Your task to perform on an android device: star an email in the gmail app Image 0: 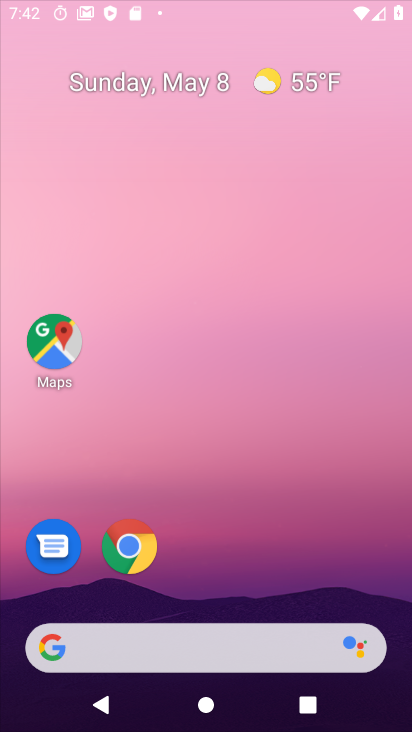
Step 0: click (218, 1)
Your task to perform on an android device: star an email in the gmail app Image 1: 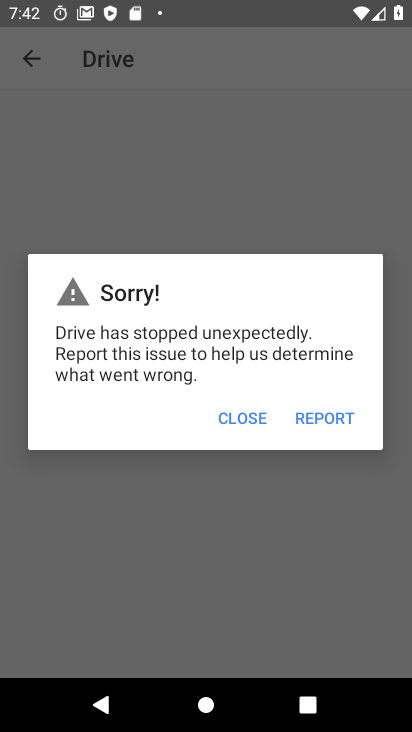
Step 1: press home button
Your task to perform on an android device: star an email in the gmail app Image 2: 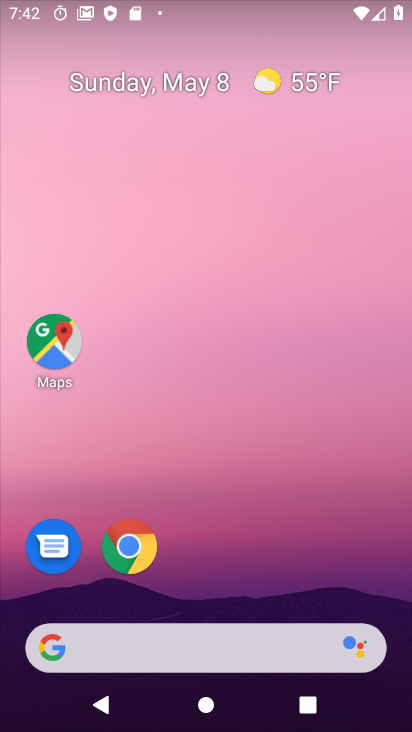
Step 2: drag from (280, 526) to (311, 19)
Your task to perform on an android device: star an email in the gmail app Image 3: 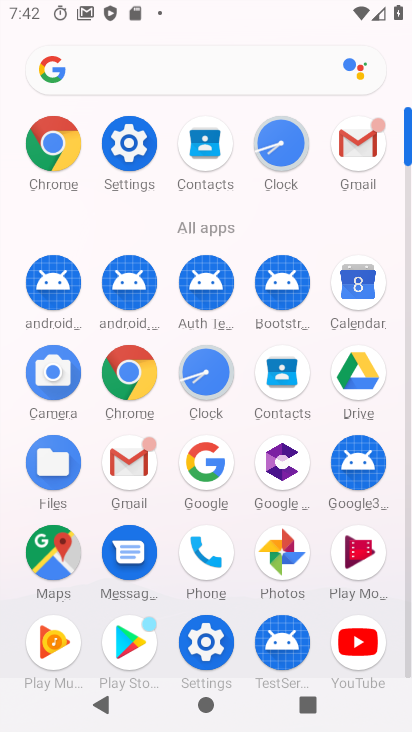
Step 3: click (341, 145)
Your task to perform on an android device: star an email in the gmail app Image 4: 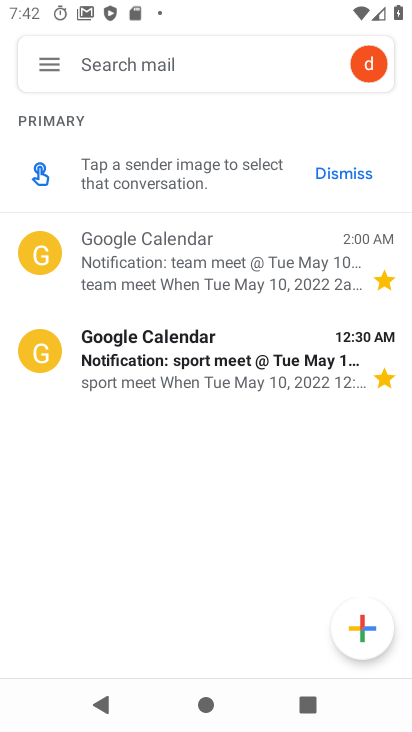
Step 4: click (46, 64)
Your task to perform on an android device: star an email in the gmail app Image 5: 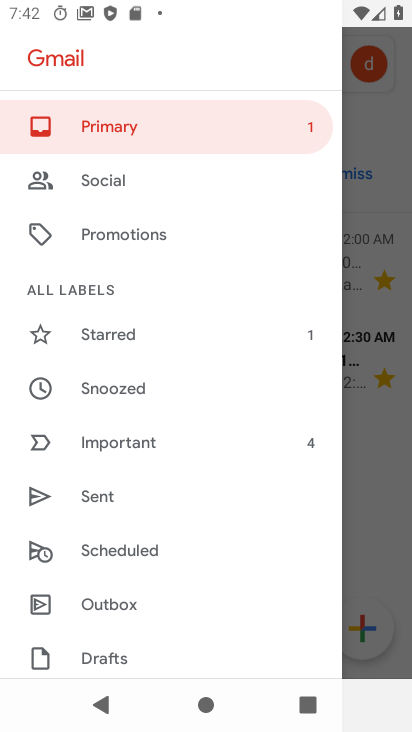
Step 5: drag from (205, 602) to (233, 205)
Your task to perform on an android device: star an email in the gmail app Image 6: 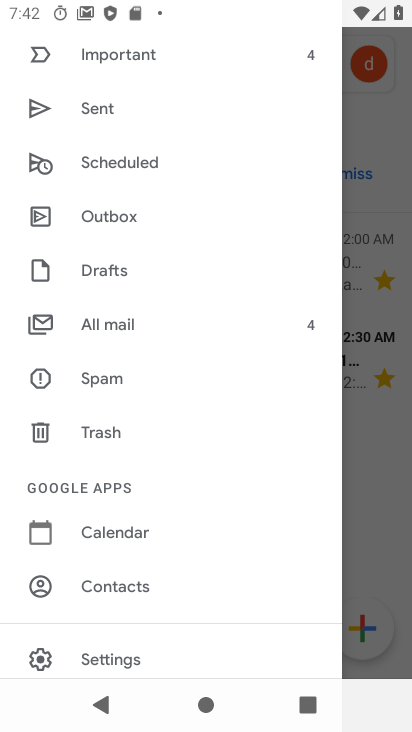
Step 6: click (178, 320)
Your task to perform on an android device: star an email in the gmail app Image 7: 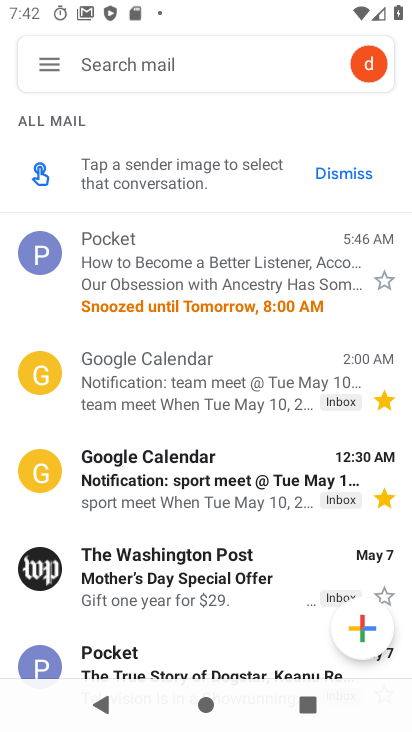
Step 7: click (387, 271)
Your task to perform on an android device: star an email in the gmail app Image 8: 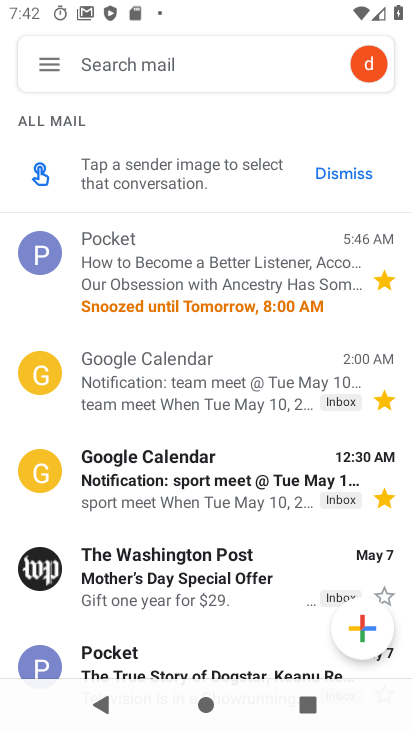
Step 8: task complete